Your task to perform on an android device: find snoozed emails in the gmail app Image 0: 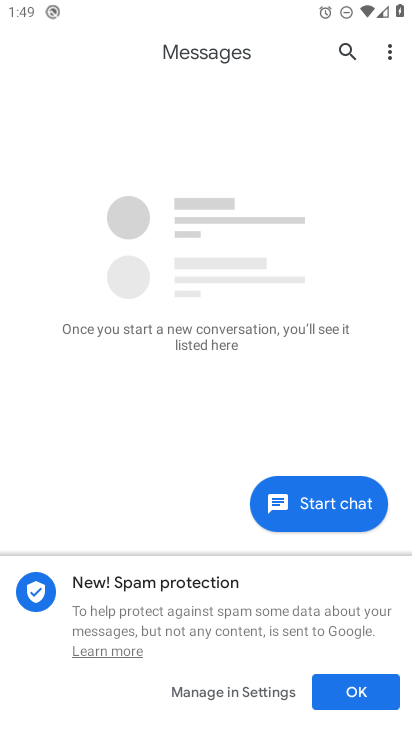
Step 0: press home button
Your task to perform on an android device: find snoozed emails in the gmail app Image 1: 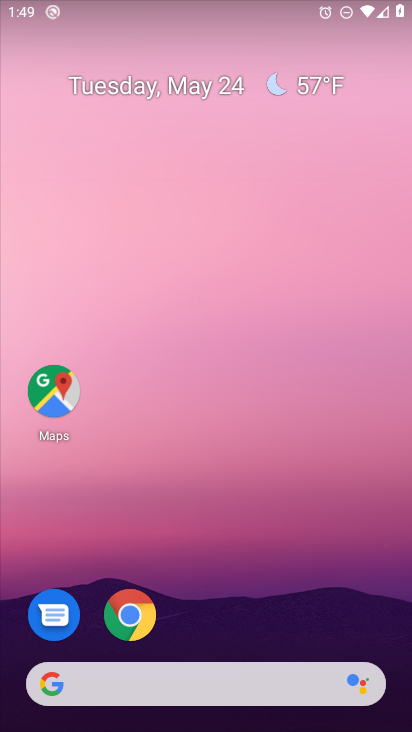
Step 1: drag from (208, 644) to (208, 220)
Your task to perform on an android device: find snoozed emails in the gmail app Image 2: 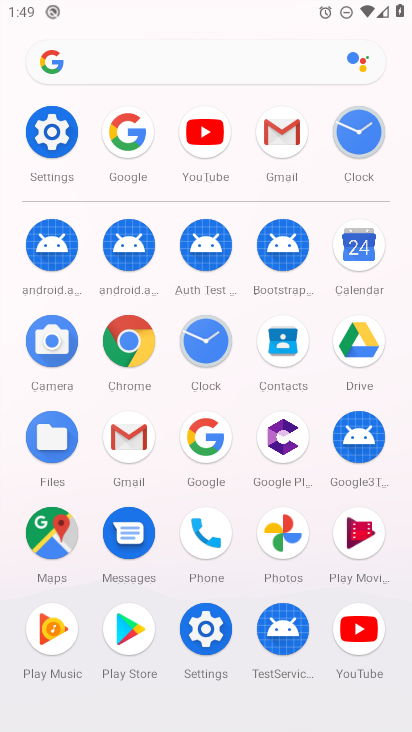
Step 2: click (272, 139)
Your task to perform on an android device: find snoozed emails in the gmail app Image 3: 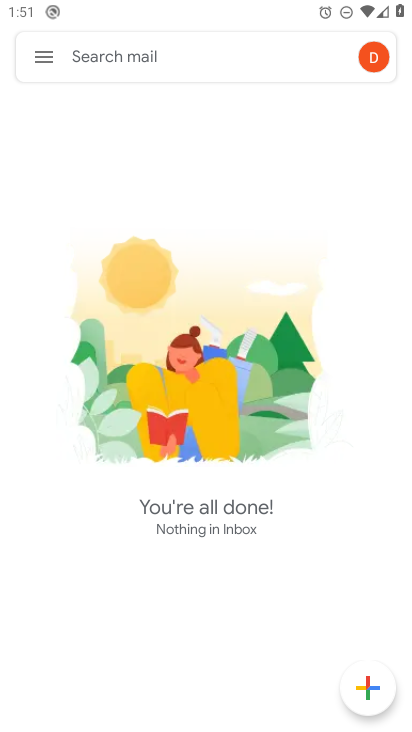
Step 3: click (49, 55)
Your task to perform on an android device: find snoozed emails in the gmail app Image 4: 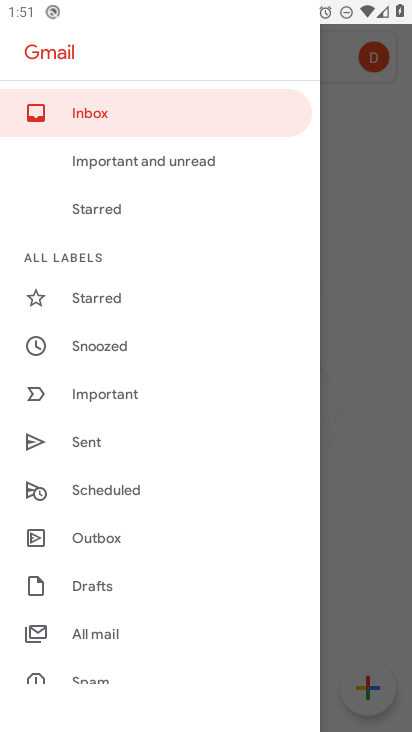
Step 4: click (123, 352)
Your task to perform on an android device: find snoozed emails in the gmail app Image 5: 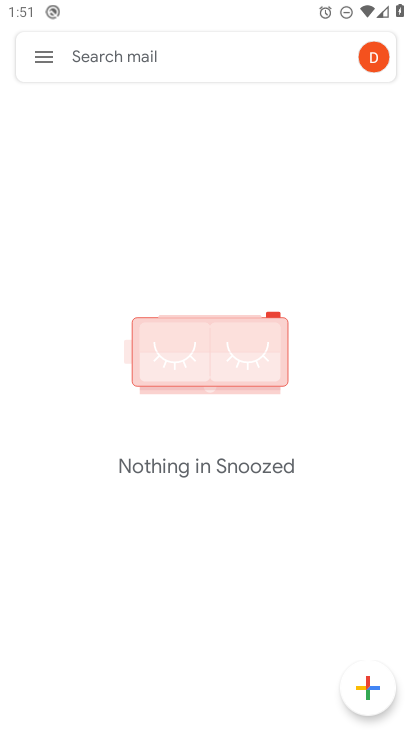
Step 5: task complete